Your task to perform on an android device: add a contact Image 0: 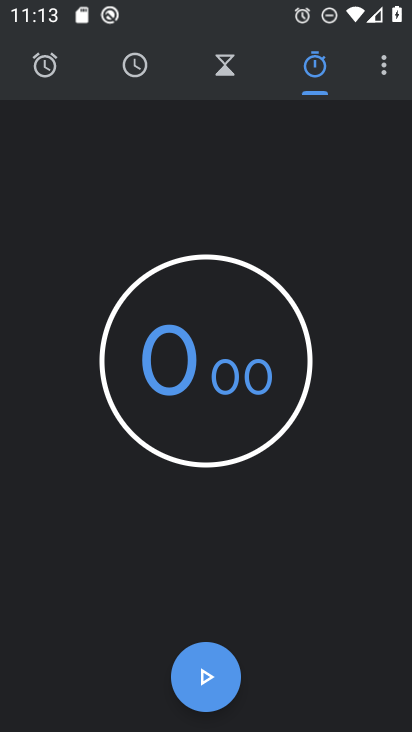
Step 0: press home button
Your task to perform on an android device: add a contact Image 1: 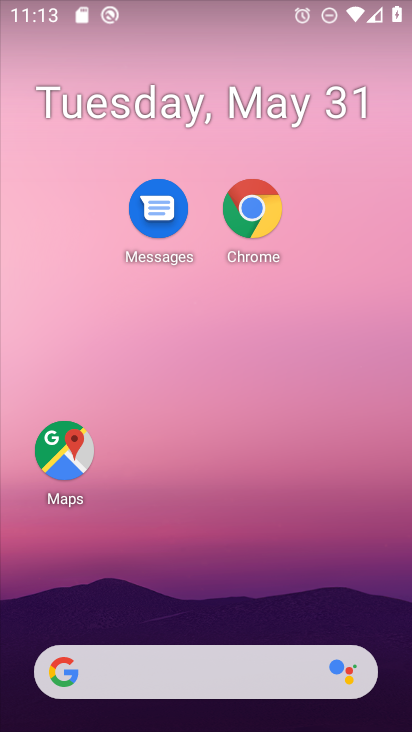
Step 1: drag from (203, 608) to (235, 73)
Your task to perform on an android device: add a contact Image 2: 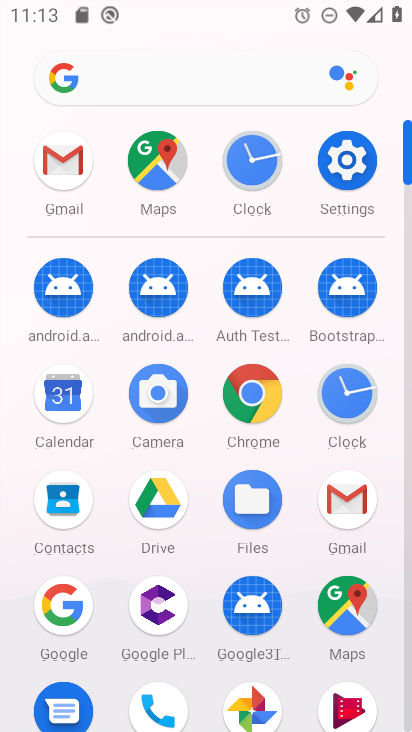
Step 2: click (61, 493)
Your task to perform on an android device: add a contact Image 3: 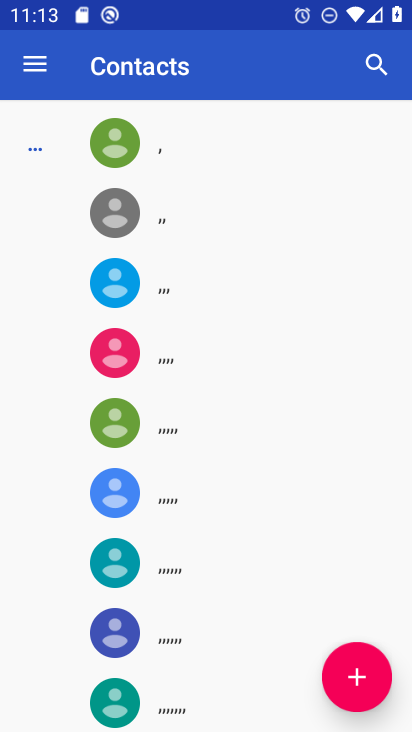
Step 3: click (358, 672)
Your task to perform on an android device: add a contact Image 4: 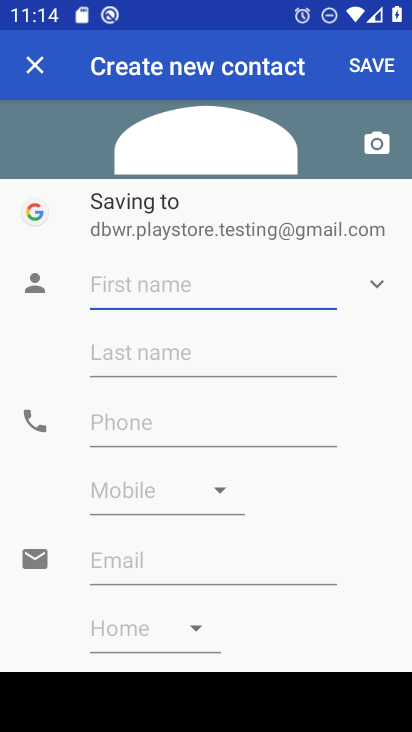
Step 4: type "gcrdx"
Your task to perform on an android device: add a contact Image 5: 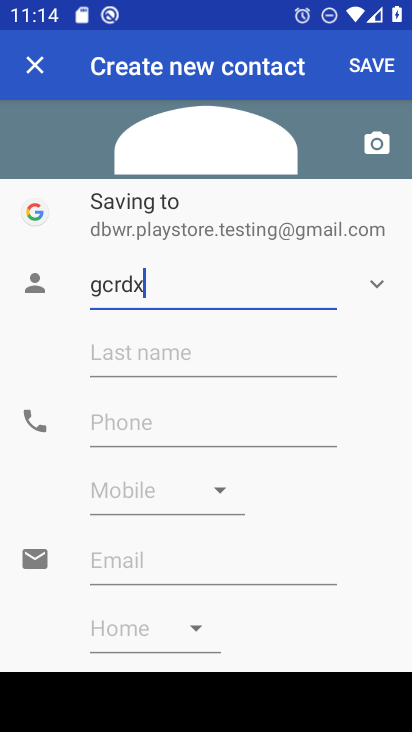
Step 5: click (366, 60)
Your task to perform on an android device: add a contact Image 6: 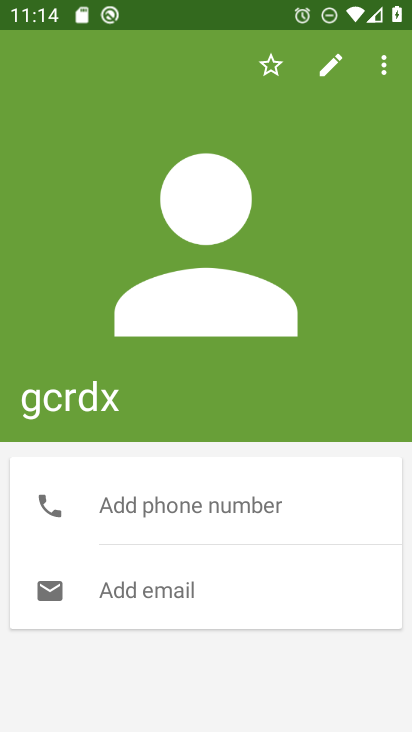
Step 6: task complete